Your task to perform on an android device: toggle notifications settings in the gmail app Image 0: 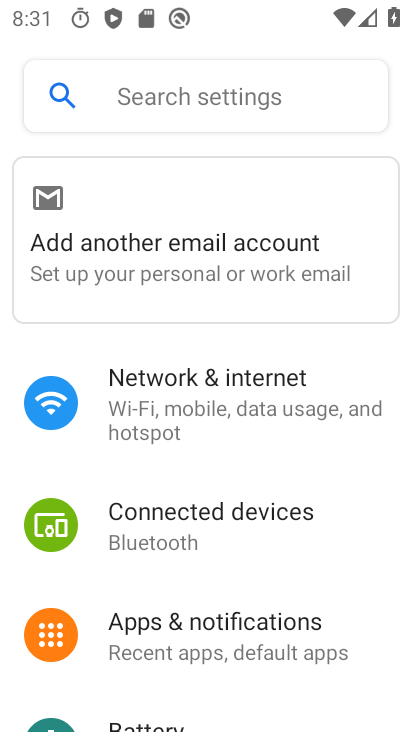
Step 0: press home button
Your task to perform on an android device: toggle notifications settings in the gmail app Image 1: 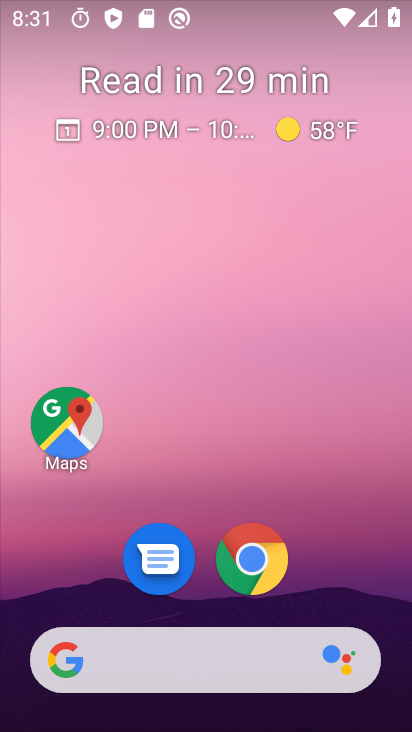
Step 1: drag from (319, 583) to (260, 55)
Your task to perform on an android device: toggle notifications settings in the gmail app Image 2: 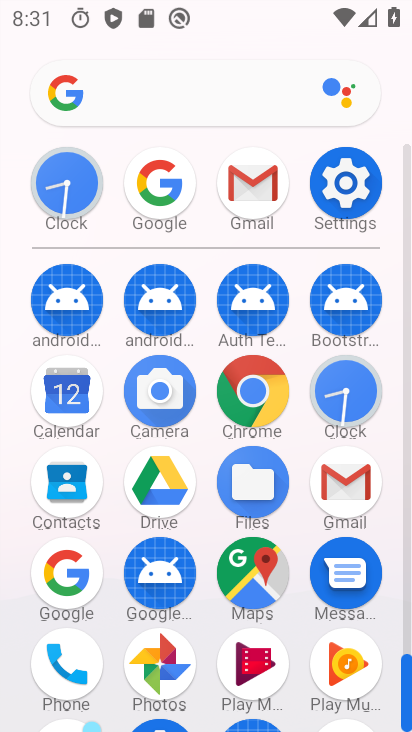
Step 2: click (255, 185)
Your task to perform on an android device: toggle notifications settings in the gmail app Image 3: 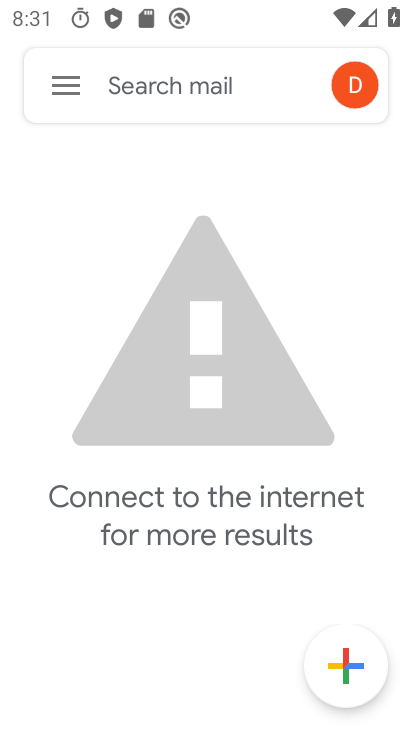
Step 3: click (58, 83)
Your task to perform on an android device: toggle notifications settings in the gmail app Image 4: 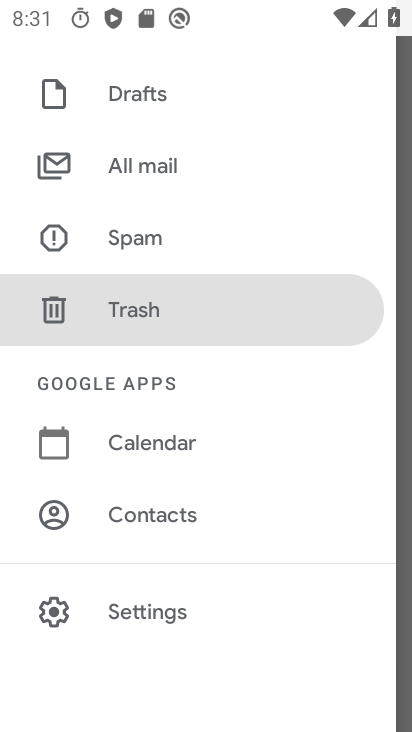
Step 4: click (168, 611)
Your task to perform on an android device: toggle notifications settings in the gmail app Image 5: 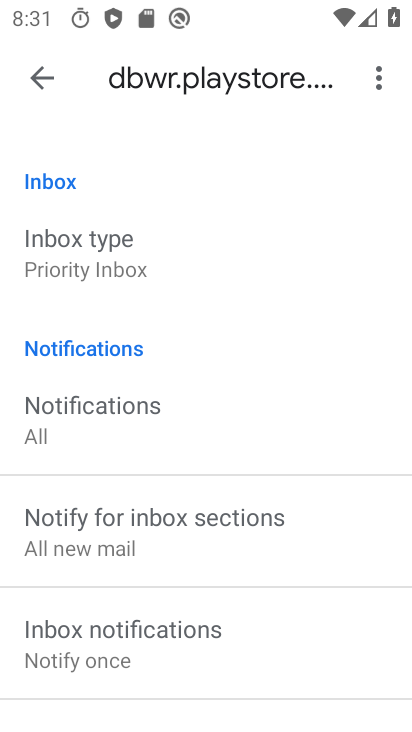
Step 5: drag from (149, 486) to (203, 377)
Your task to perform on an android device: toggle notifications settings in the gmail app Image 6: 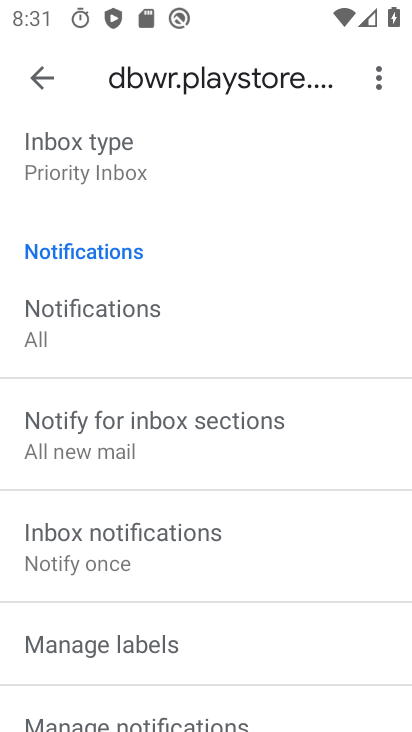
Step 6: drag from (132, 591) to (217, 451)
Your task to perform on an android device: toggle notifications settings in the gmail app Image 7: 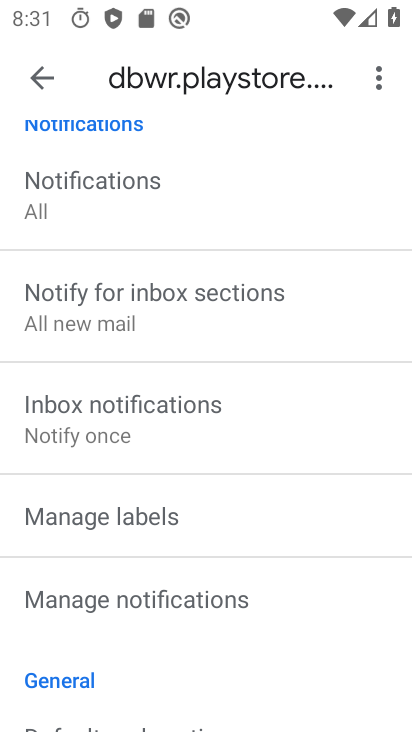
Step 7: click (118, 597)
Your task to perform on an android device: toggle notifications settings in the gmail app Image 8: 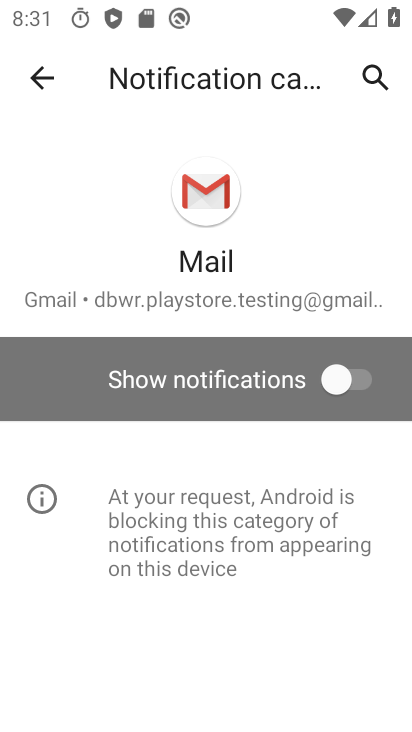
Step 8: click (358, 377)
Your task to perform on an android device: toggle notifications settings in the gmail app Image 9: 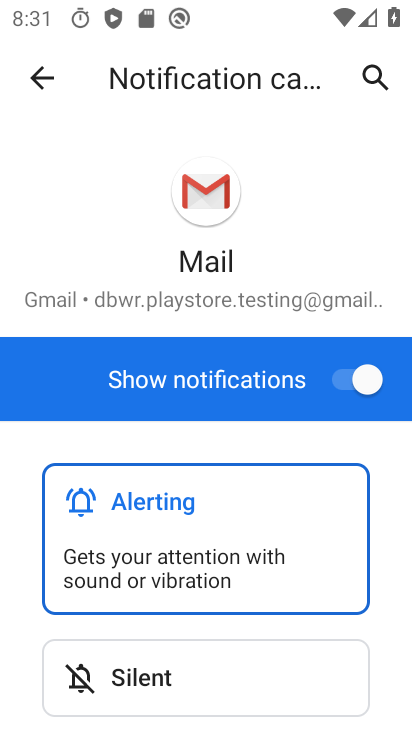
Step 9: task complete